Your task to perform on an android device: uninstall "VLC for Android" Image 0: 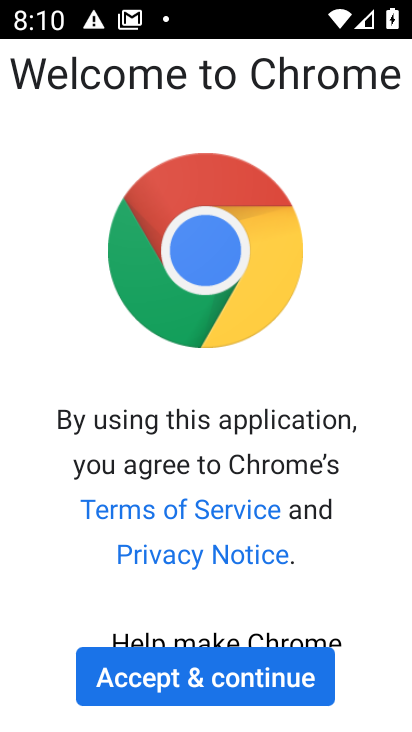
Step 0: press home button
Your task to perform on an android device: uninstall "VLC for Android" Image 1: 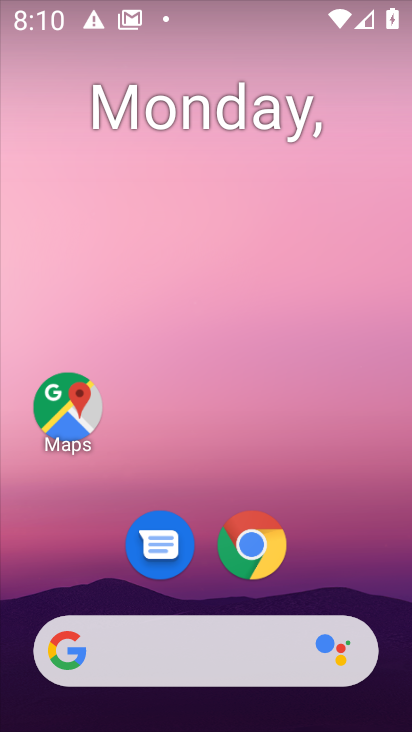
Step 1: drag from (352, 556) to (259, 244)
Your task to perform on an android device: uninstall "VLC for Android" Image 2: 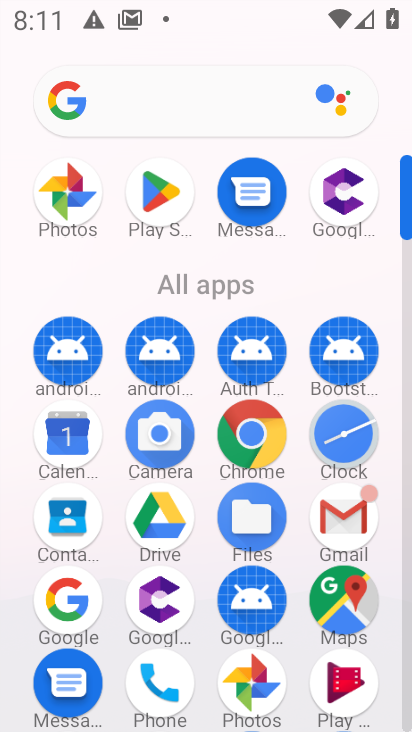
Step 2: drag from (235, 303) to (188, 188)
Your task to perform on an android device: uninstall "VLC for Android" Image 3: 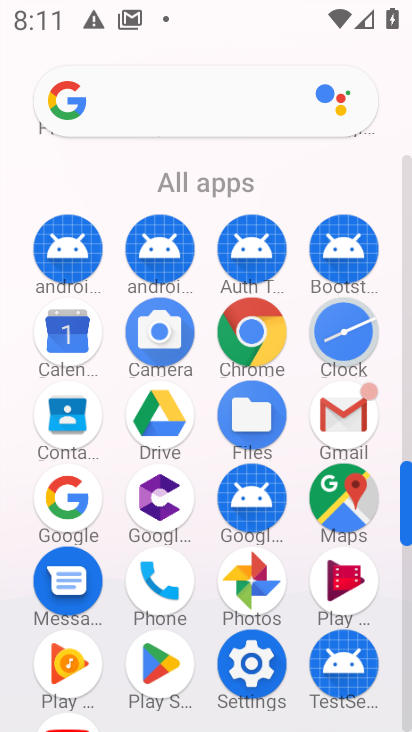
Step 3: click (154, 641)
Your task to perform on an android device: uninstall "VLC for Android" Image 4: 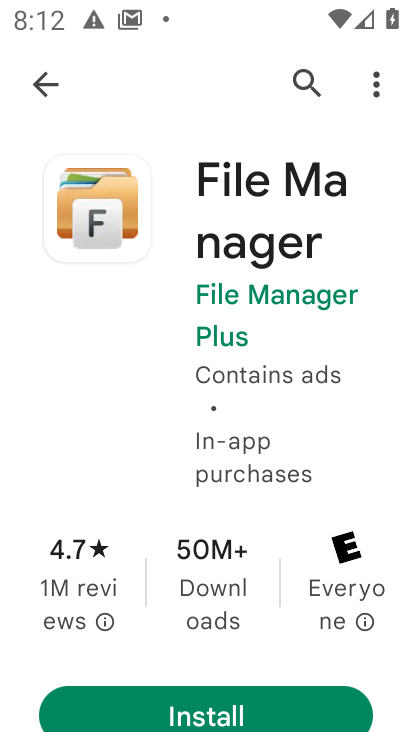
Step 4: click (319, 85)
Your task to perform on an android device: uninstall "VLC for Android" Image 5: 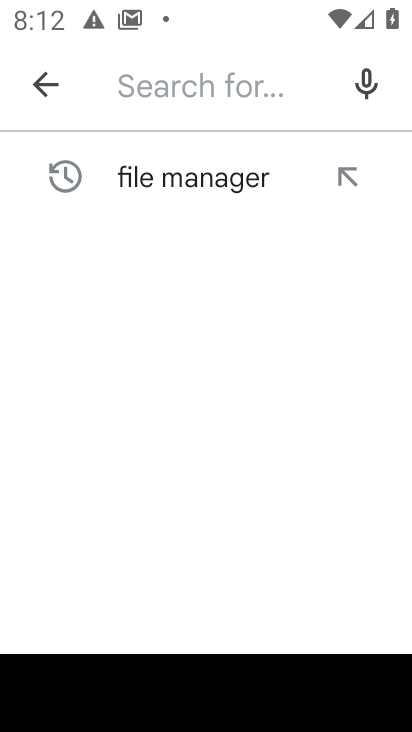
Step 5: type "vlc for android"
Your task to perform on an android device: uninstall "VLC for Android" Image 6: 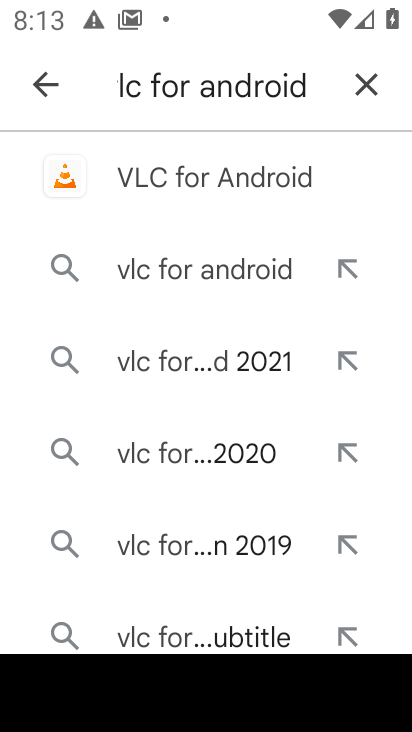
Step 6: click (263, 175)
Your task to perform on an android device: uninstall "VLC for Android" Image 7: 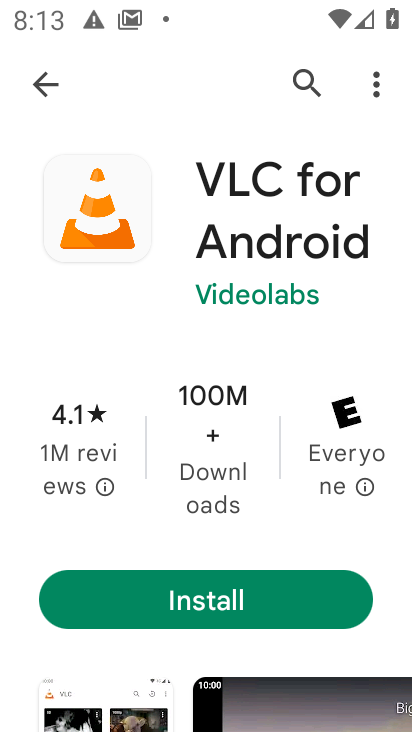
Step 7: task complete